Your task to perform on an android device: turn on priority inbox in the gmail app Image 0: 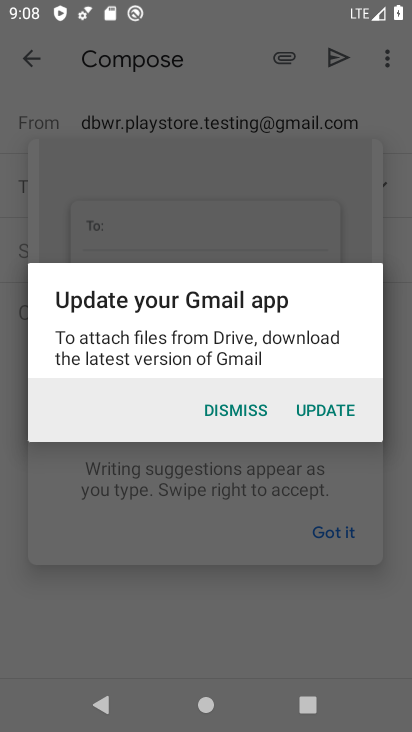
Step 0: press home button
Your task to perform on an android device: turn on priority inbox in the gmail app Image 1: 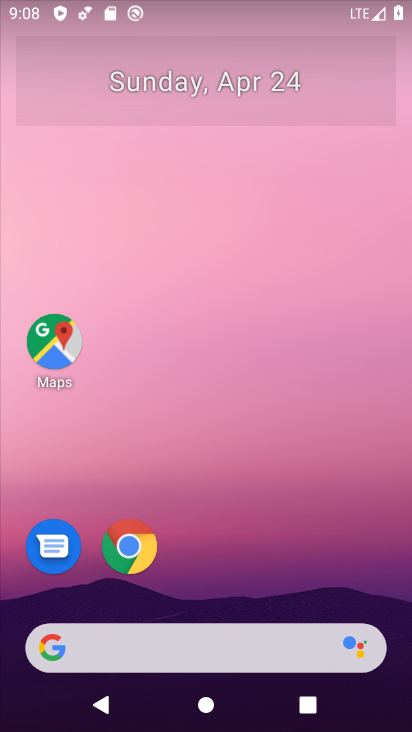
Step 1: drag from (237, 573) to (167, 79)
Your task to perform on an android device: turn on priority inbox in the gmail app Image 2: 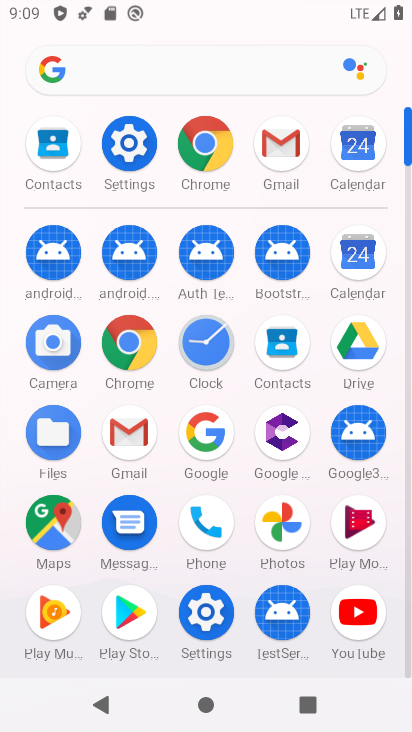
Step 2: click (134, 437)
Your task to perform on an android device: turn on priority inbox in the gmail app Image 3: 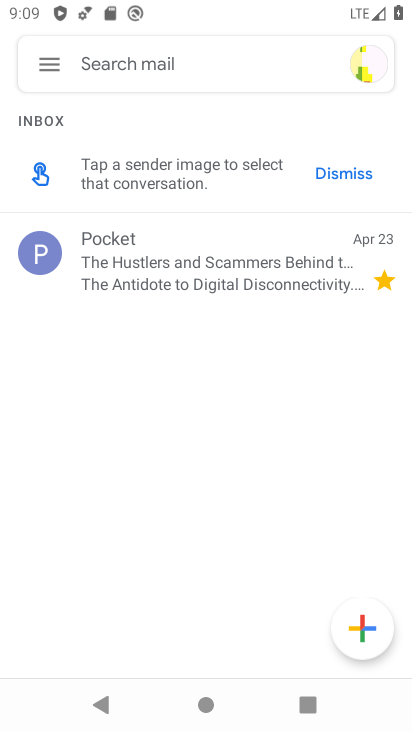
Step 3: click (45, 60)
Your task to perform on an android device: turn on priority inbox in the gmail app Image 4: 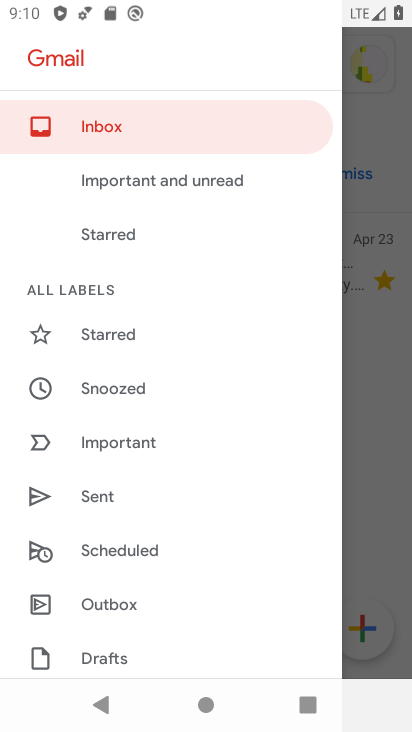
Step 4: click (168, 127)
Your task to perform on an android device: turn on priority inbox in the gmail app Image 5: 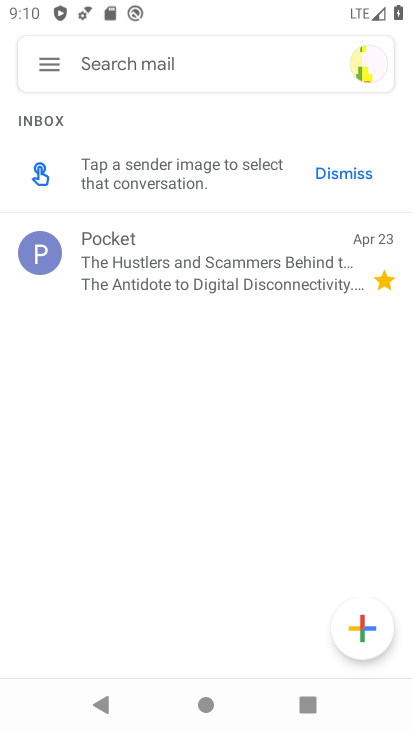
Step 5: click (45, 82)
Your task to perform on an android device: turn on priority inbox in the gmail app Image 6: 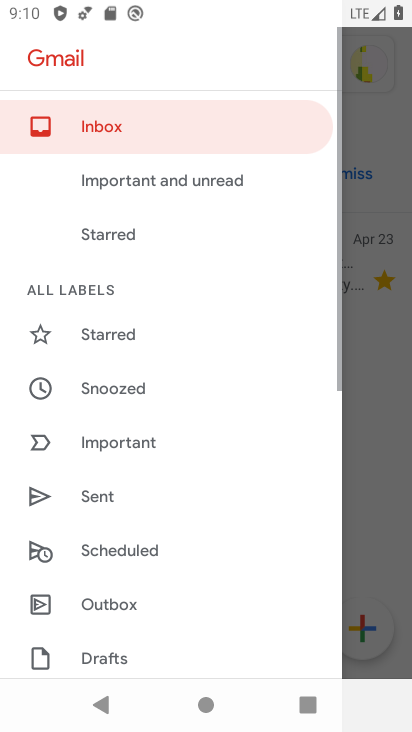
Step 6: drag from (118, 475) to (200, 167)
Your task to perform on an android device: turn on priority inbox in the gmail app Image 7: 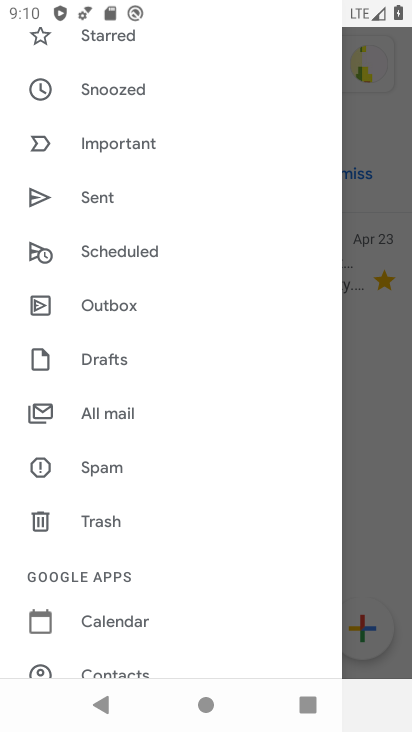
Step 7: drag from (189, 562) to (232, 249)
Your task to perform on an android device: turn on priority inbox in the gmail app Image 8: 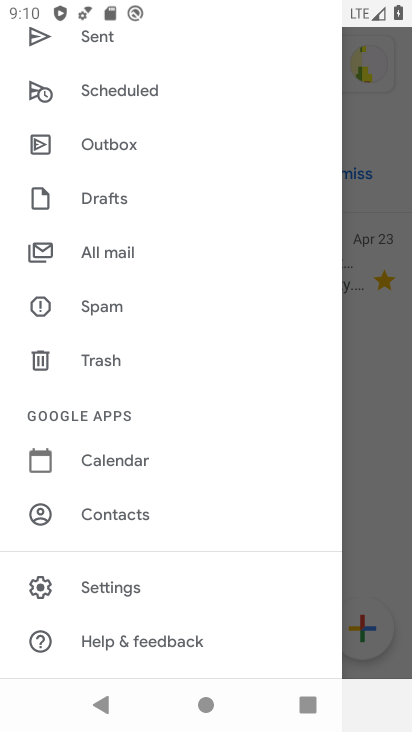
Step 8: click (191, 582)
Your task to perform on an android device: turn on priority inbox in the gmail app Image 9: 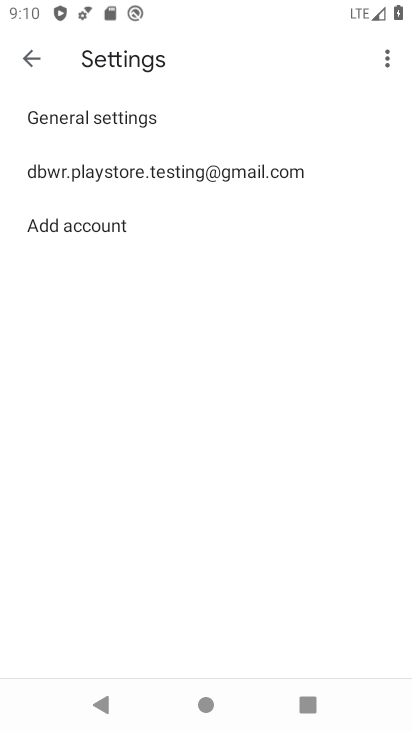
Step 9: click (61, 172)
Your task to perform on an android device: turn on priority inbox in the gmail app Image 10: 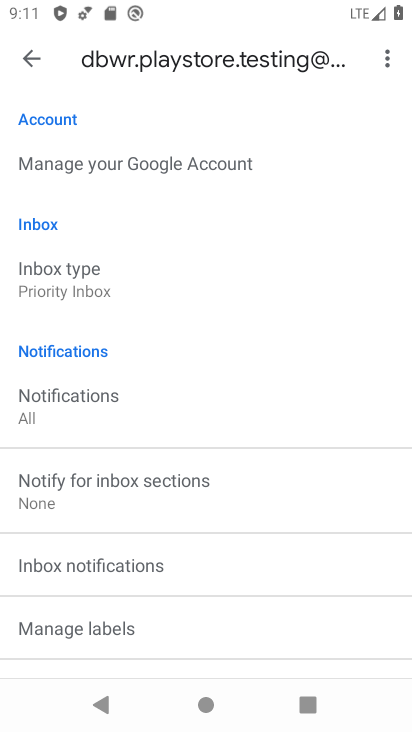
Step 10: click (105, 297)
Your task to perform on an android device: turn on priority inbox in the gmail app Image 11: 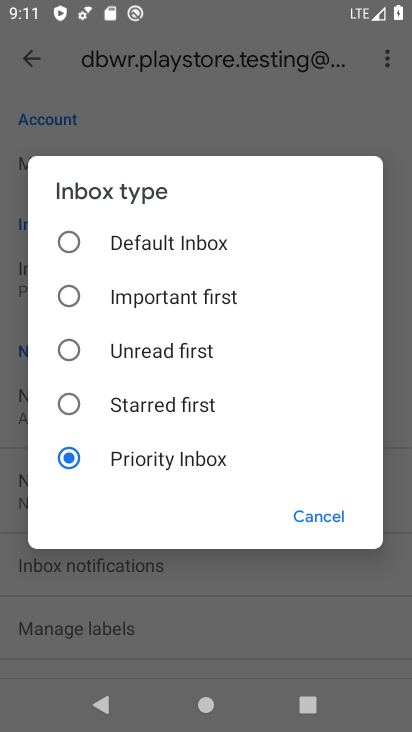
Step 11: task complete